Your task to perform on an android device: Open display settings Image 0: 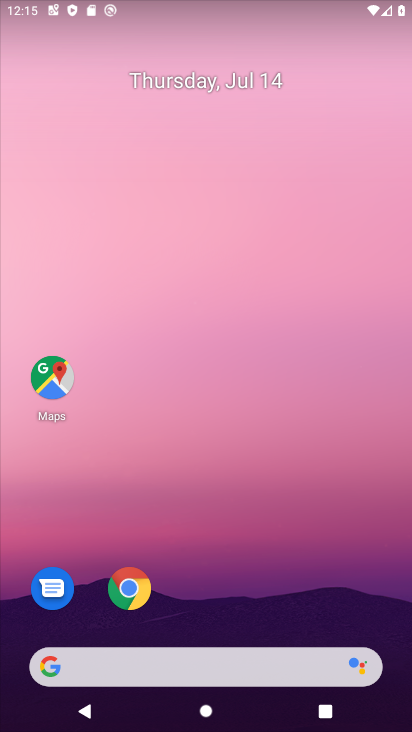
Step 0: drag from (258, 605) to (234, 138)
Your task to perform on an android device: Open display settings Image 1: 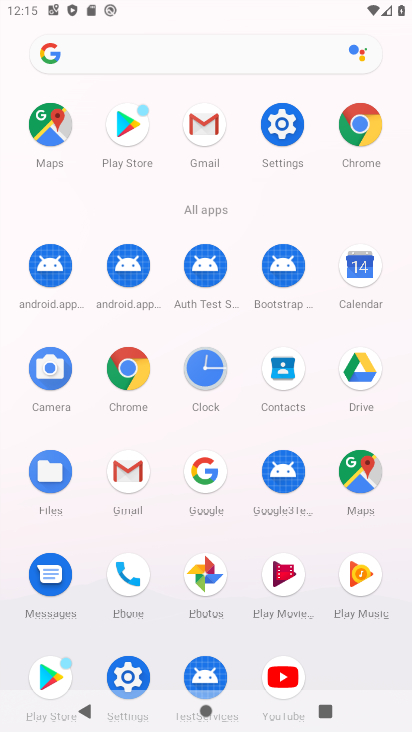
Step 1: click (274, 152)
Your task to perform on an android device: Open display settings Image 2: 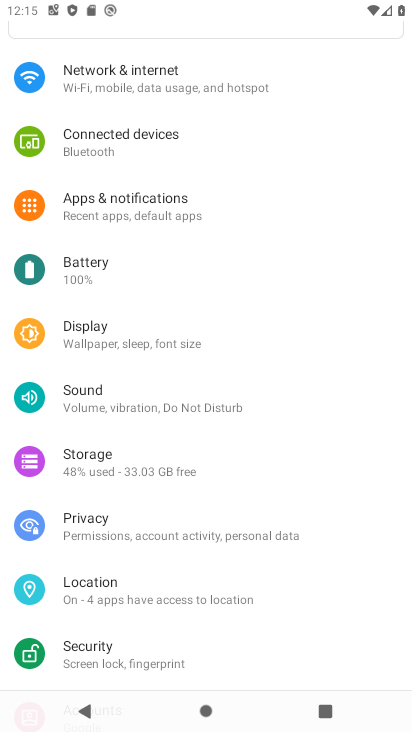
Step 2: click (164, 333)
Your task to perform on an android device: Open display settings Image 3: 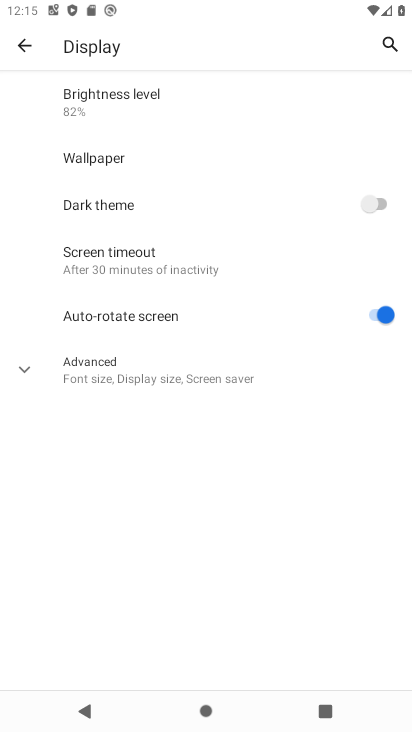
Step 3: task complete